Your task to perform on an android device: delete location history Image 0: 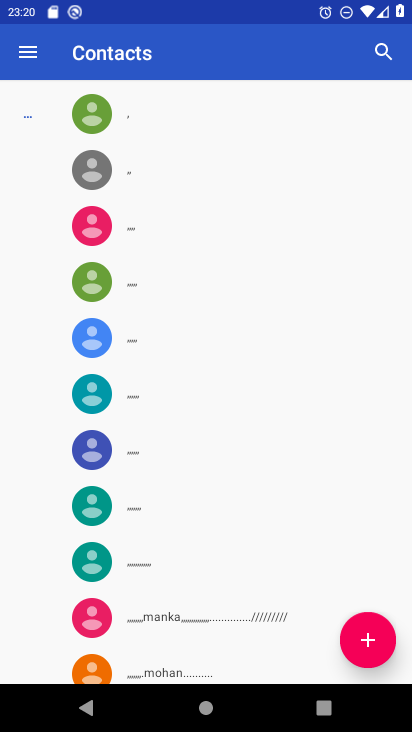
Step 0: press home button
Your task to perform on an android device: delete location history Image 1: 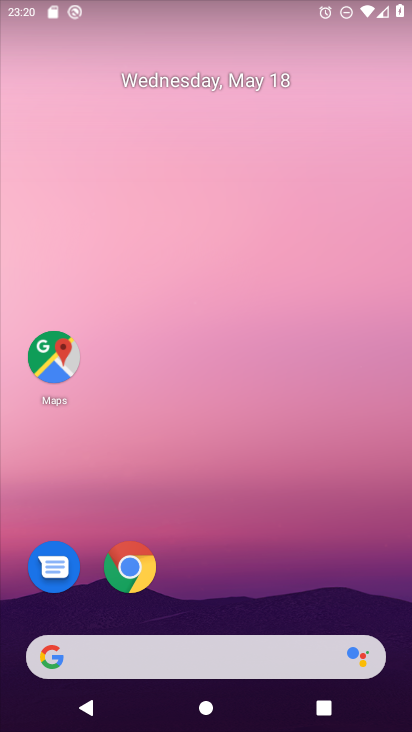
Step 1: drag from (258, 684) to (272, 267)
Your task to perform on an android device: delete location history Image 2: 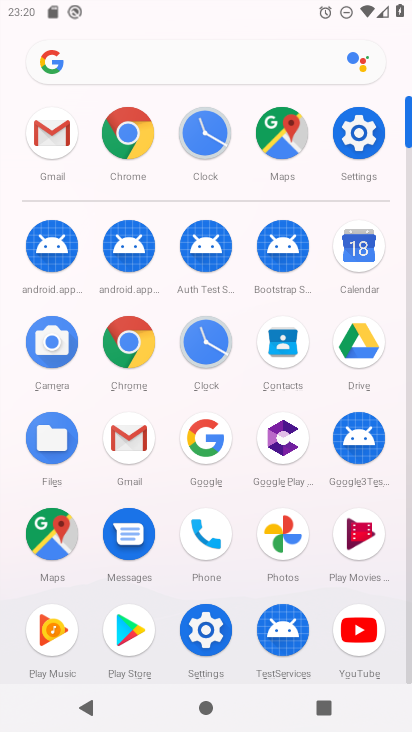
Step 2: click (132, 147)
Your task to perform on an android device: delete location history Image 3: 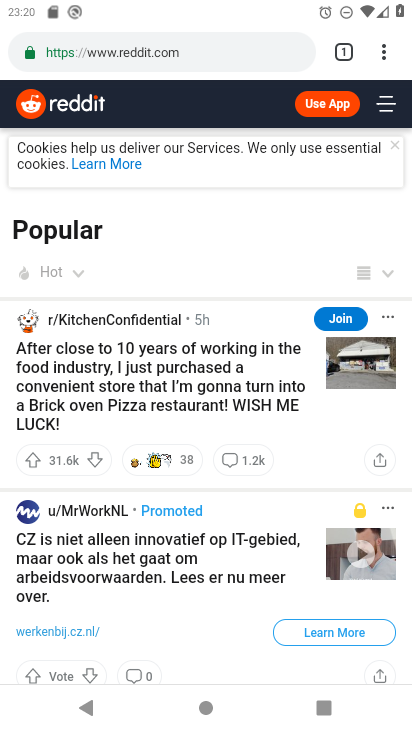
Step 3: click (374, 63)
Your task to perform on an android device: delete location history Image 4: 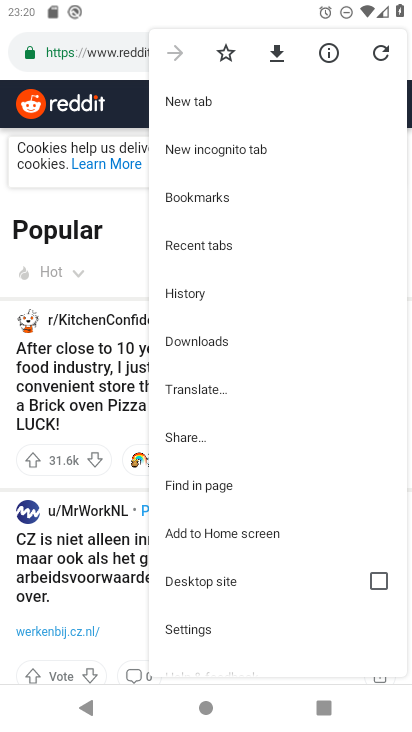
Step 4: click (198, 290)
Your task to perform on an android device: delete location history Image 5: 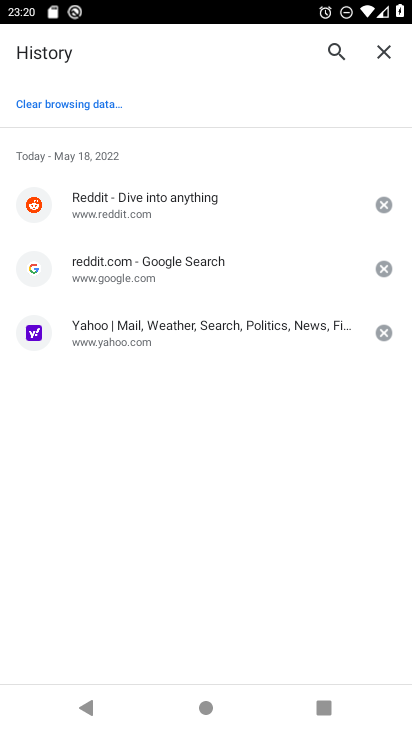
Step 5: click (78, 112)
Your task to perform on an android device: delete location history Image 6: 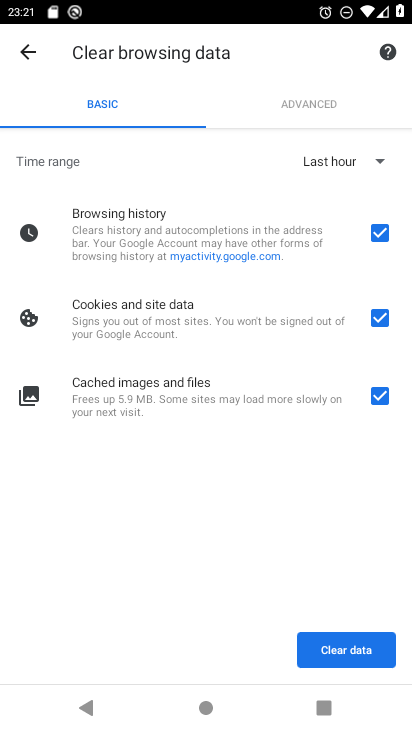
Step 6: click (364, 665)
Your task to perform on an android device: delete location history Image 7: 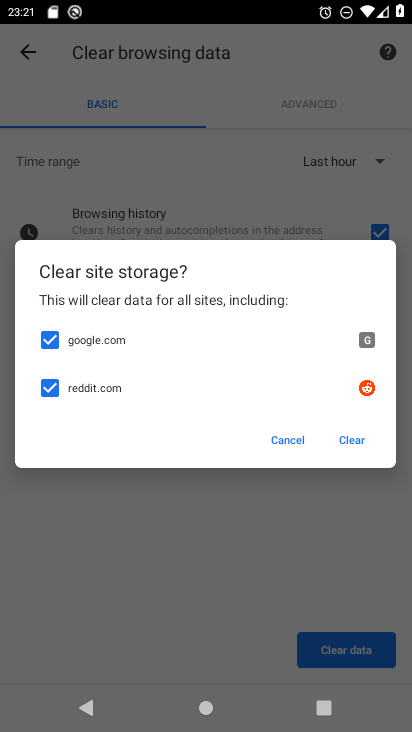
Step 7: click (342, 442)
Your task to perform on an android device: delete location history Image 8: 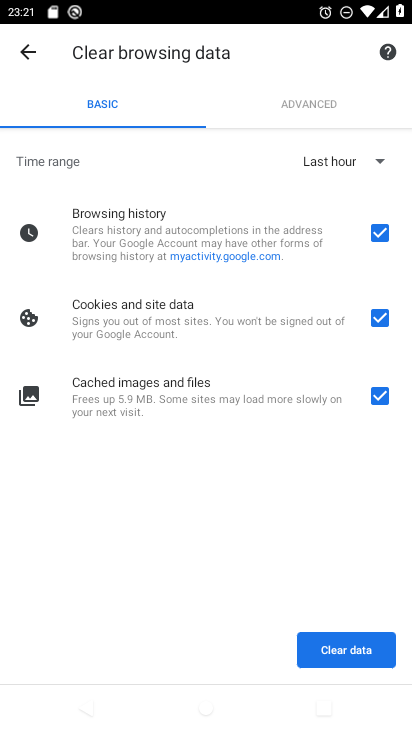
Step 8: task complete